Your task to perform on an android device: Go to privacy settings Image 0: 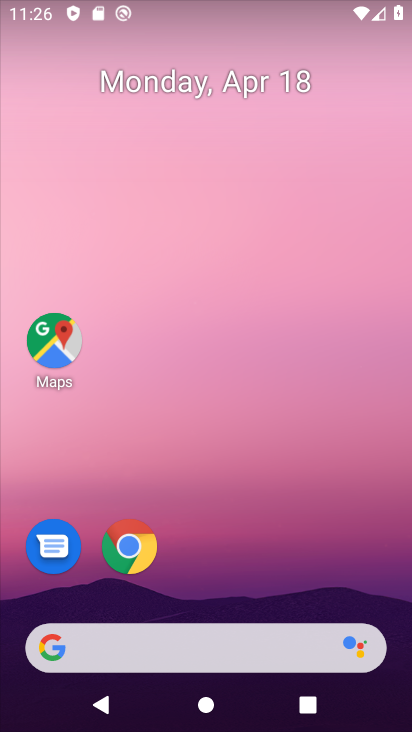
Step 0: drag from (237, 607) to (177, 165)
Your task to perform on an android device: Go to privacy settings Image 1: 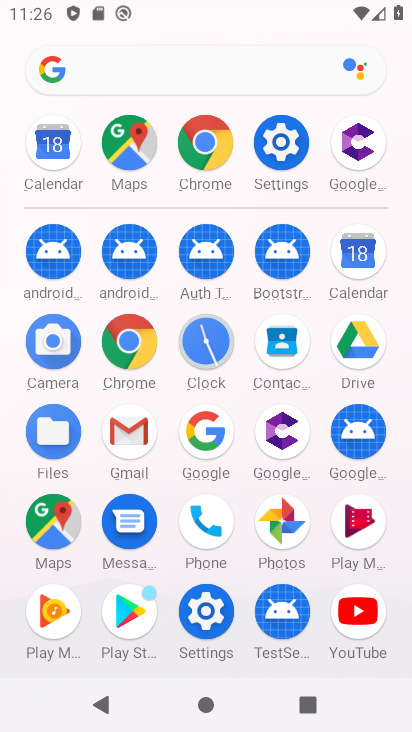
Step 1: click (272, 168)
Your task to perform on an android device: Go to privacy settings Image 2: 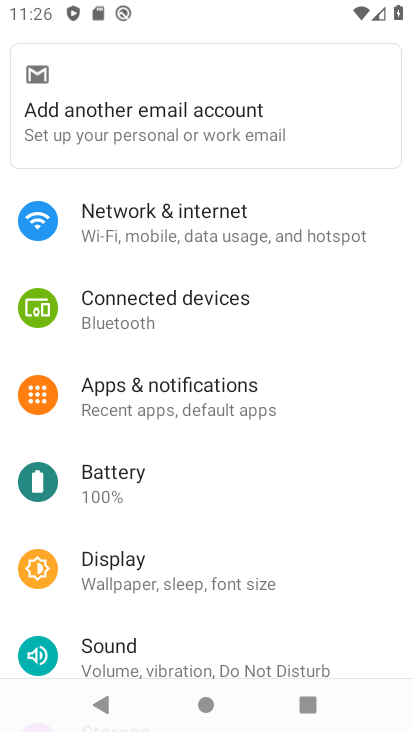
Step 2: drag from (247, 556) to (133, 116)
Your task to perform on an android device: Go to privacy settings Image 3: 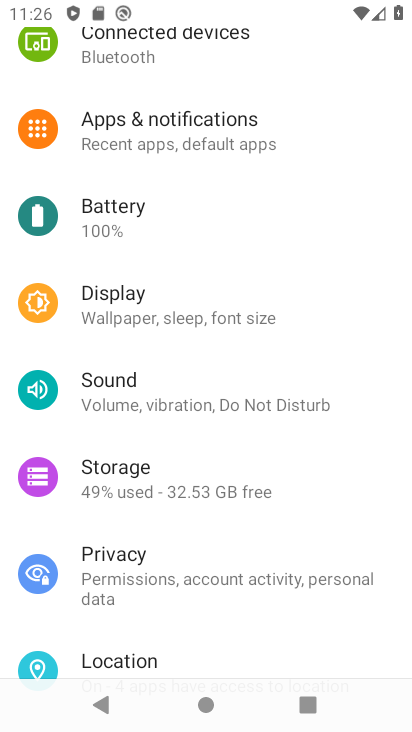
Step 3: click (149, 556)
Your task to perform on an android device: Go to privacy settings Image 4: 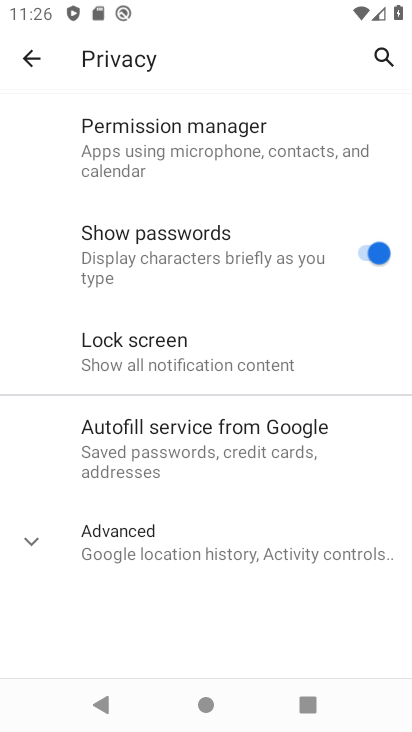
Step 4: task complete